Your task to perform on an android device: turn off sleep mode Image 0: 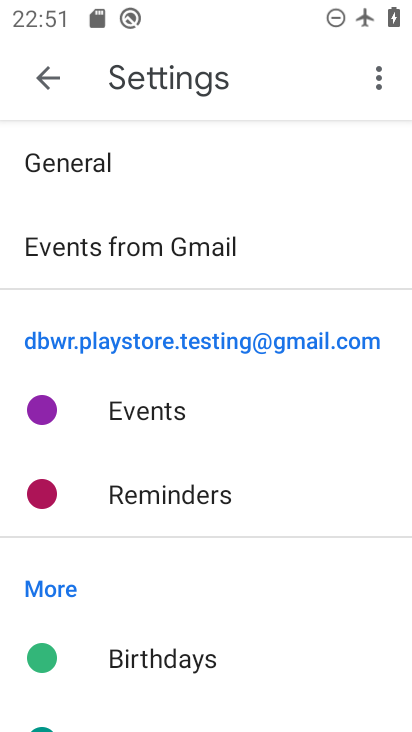
Step 0: drag from (316, 275) to (337, 712)
Your task to perform on an android device: turn off sleep mode Image 1: 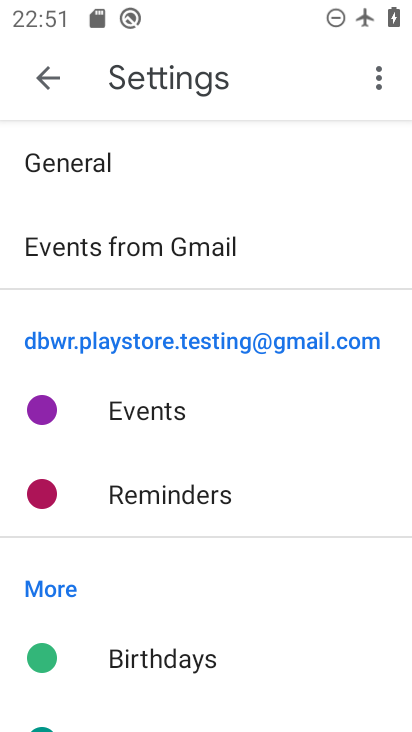
Step 1: click (44, 68)
Your task to perform on an android device: turn off sleep mode Image 2: 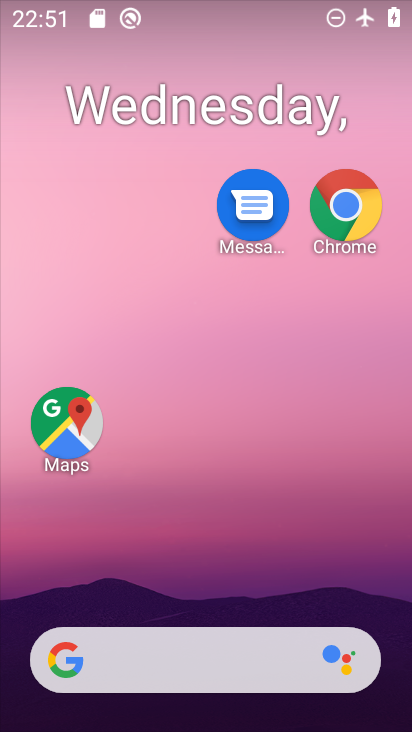
Step 2: drag from (198, 628) to (255, 166)
Your task to perform on an android device: turn off sleep mode Image 3: 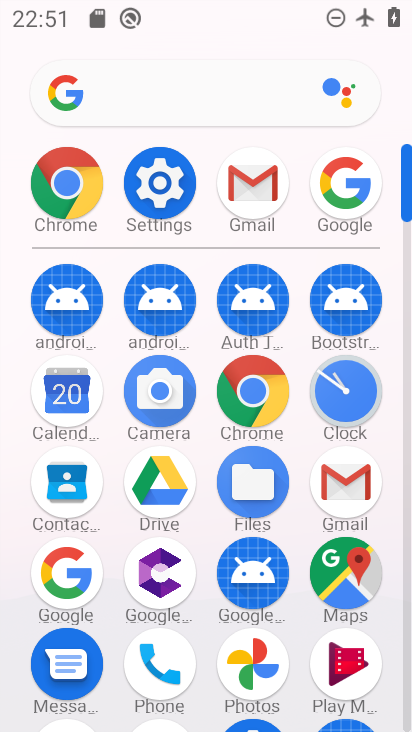
Step 3: click (158, 156)
Your task to perform on an android device: turn off sleep mode Image 4: 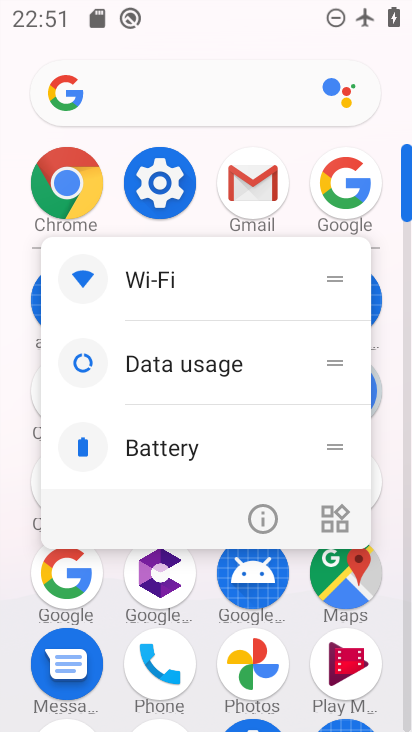
Step 4: click (271, 531)
Your task to perform on an android device: turn off sleep mode Image 5: 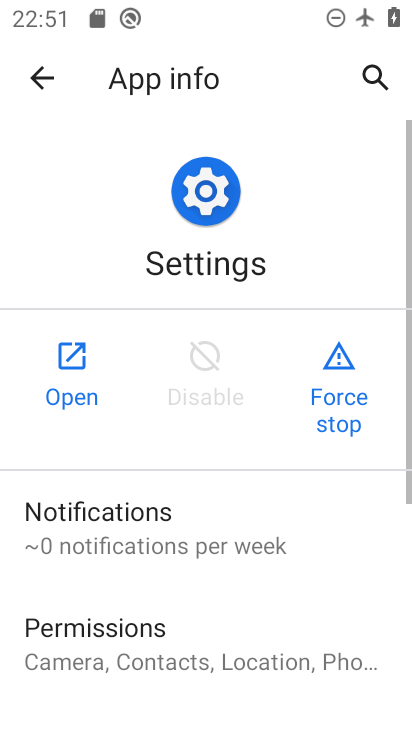
Step 5: click (80, 357)
Your task to perform on an android device: turn off sleep mode Image 6: 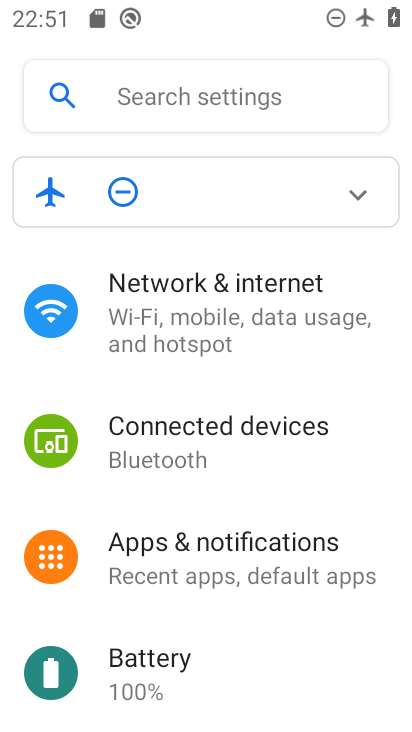
Step 6: drag from (235, 633) to (223, 177)
Your task to perform on an android device: turn off sleep mode Image 7: 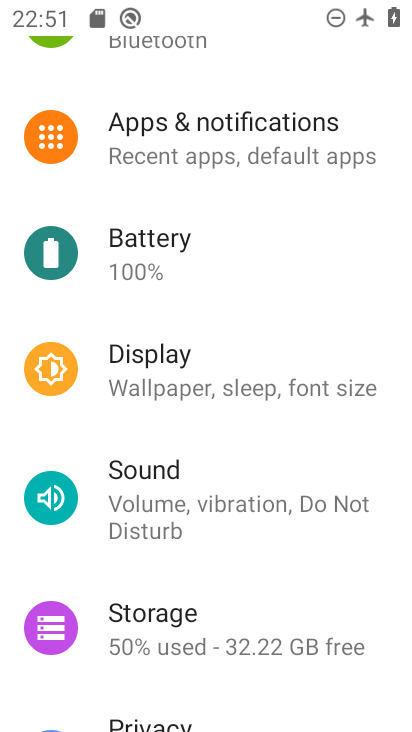
Step 7: click (192, 315)
Your task to perform on an android device: turn off sleep mode Image 8: 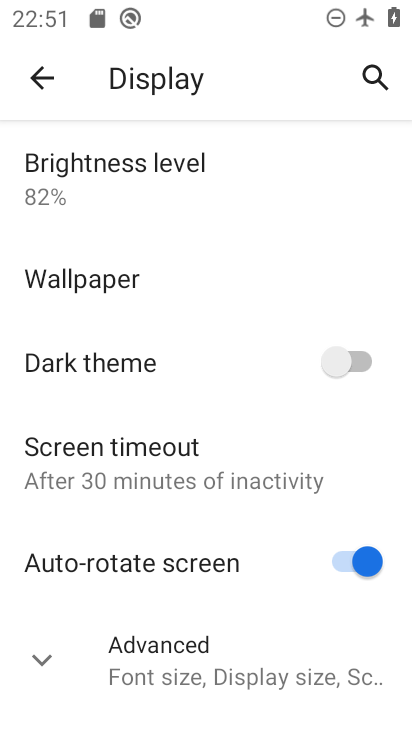
Step 8: click (200, 481)
Your task to perform on an android device: turn off sleep mode Image 9: 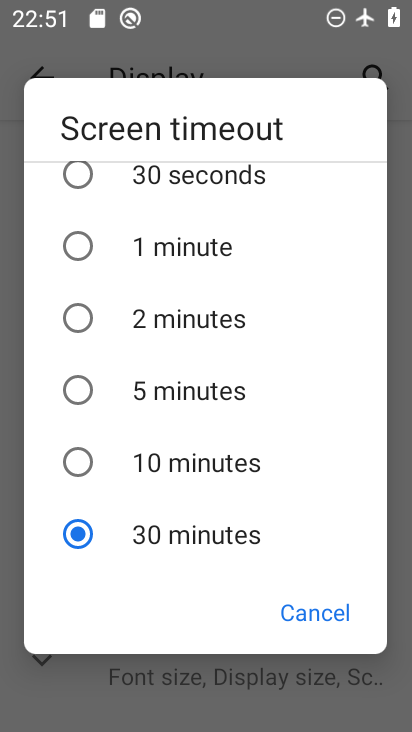
Step 9: task complete